Your task to perform on an android device: toggle notifications settings in the gmail app Image 0: 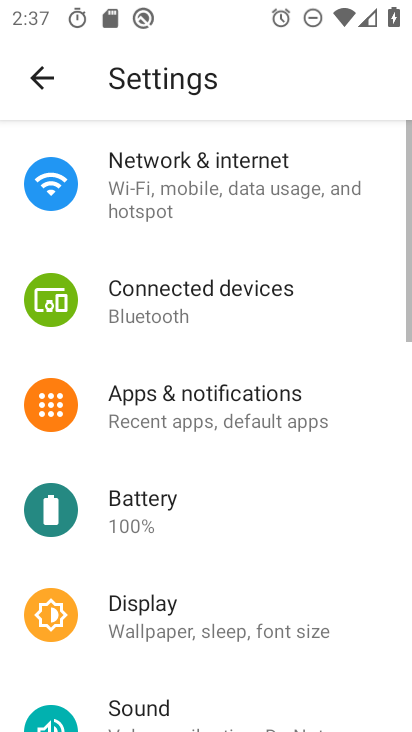
Step 0: press home button
Your task to perform on an android device: toggle notifications settings in the gmail app Image 1: 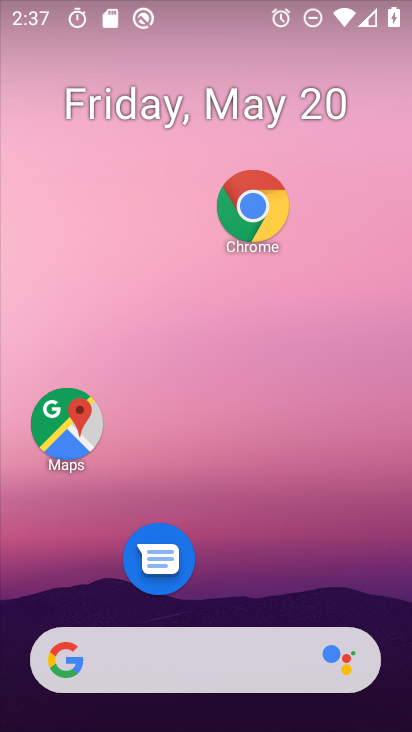
Step 1: drag from (208, 624) to (217, 104)
Your task to perform on an android device: toggle notifications settings in the gmail app Image 2: 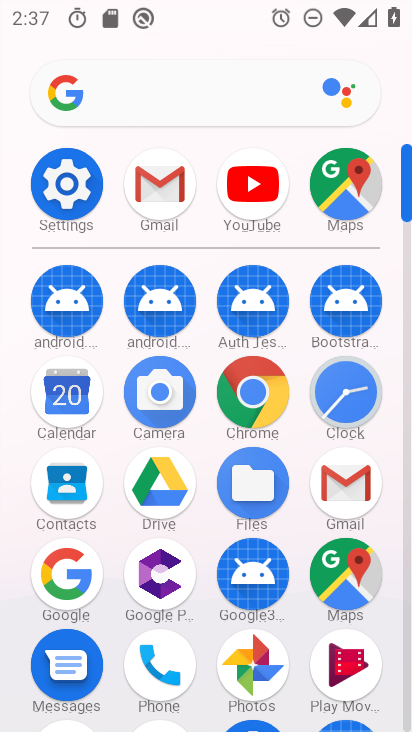
Step 2: click (333, 509)
Your task to perform on an android device: toggle notifications settings in the gmail app Image 3: 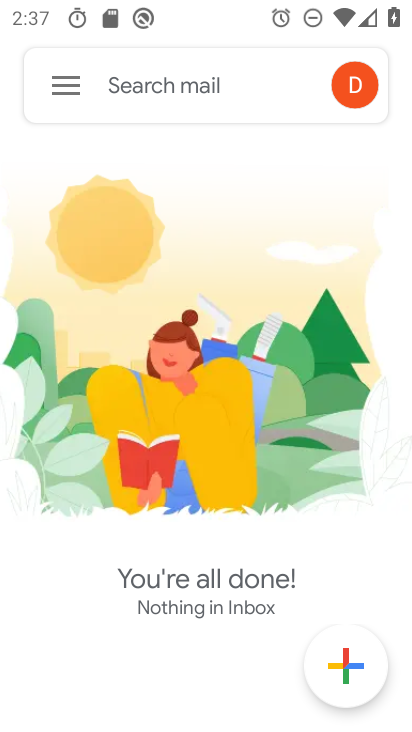
Step 3: click (53, 85)
Your task to perform on an android device: toggle notifications settings in the gmail app Image 4: 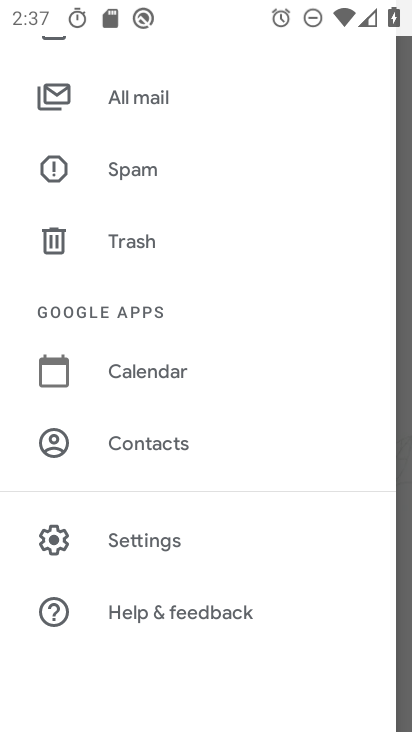
Step 4: click (126, 529)
Your task to perform on an android device: toggle notifications settings in the gmail app Image 5: 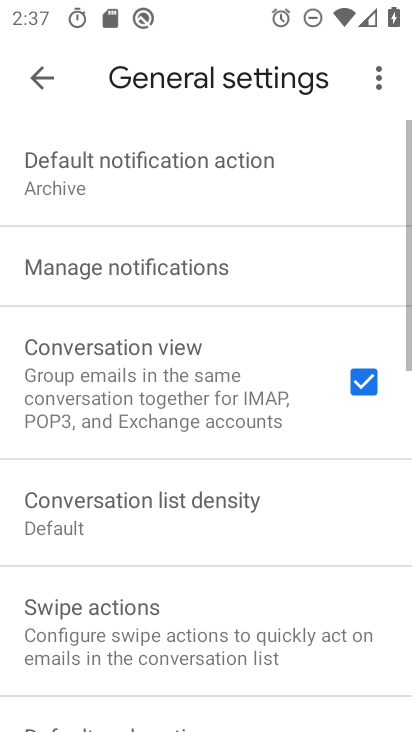
Step 5: click (109, 256)
Your task to perform on an android device: toggle notifications settings in the gmail app Image 6: 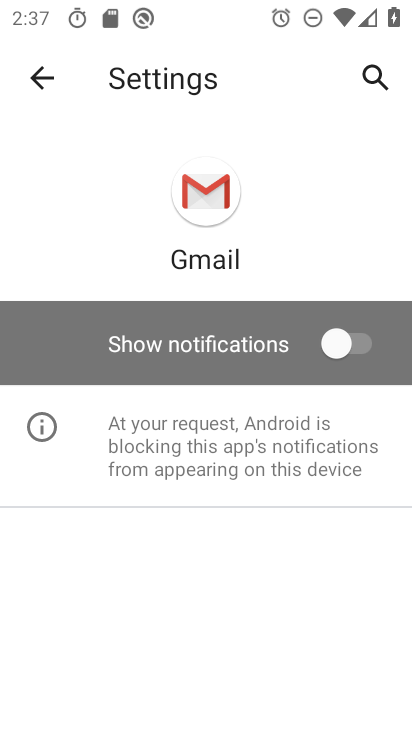
Step 6: click (326, 350)
Your task to perform on an android device: toggle notifications settings in the gmail app Image 7: 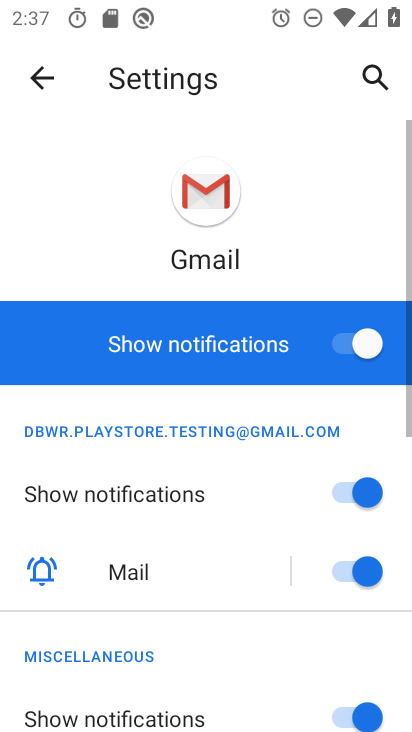
Step 7: task complete